Your task to perform on an android device: Open Wikipedia Image 0: 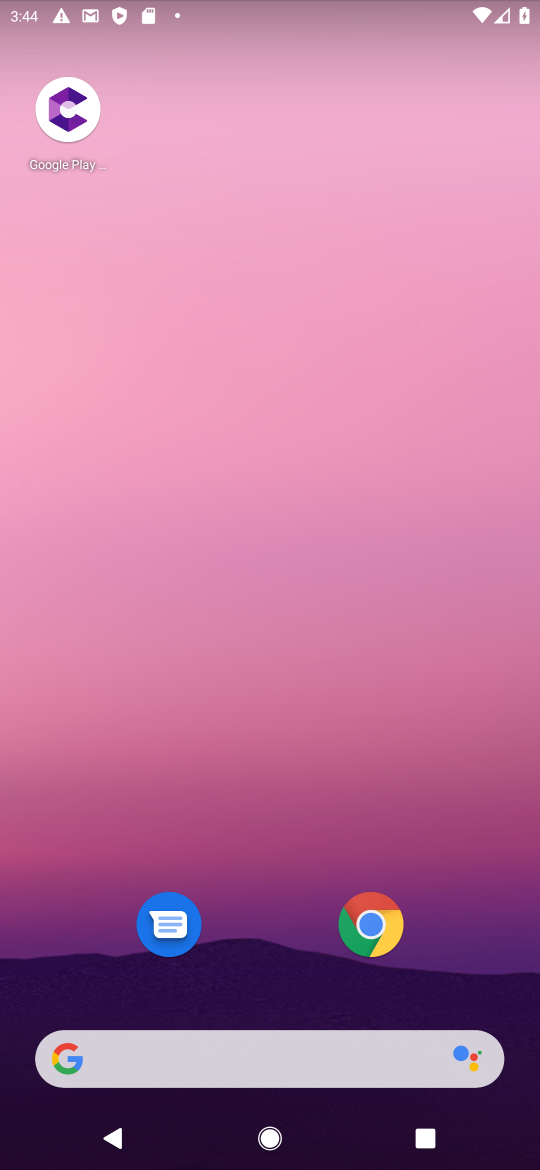
Step 0: click (366, 920)
Your task to perform on an android device: Open Wikipedia Image 1: 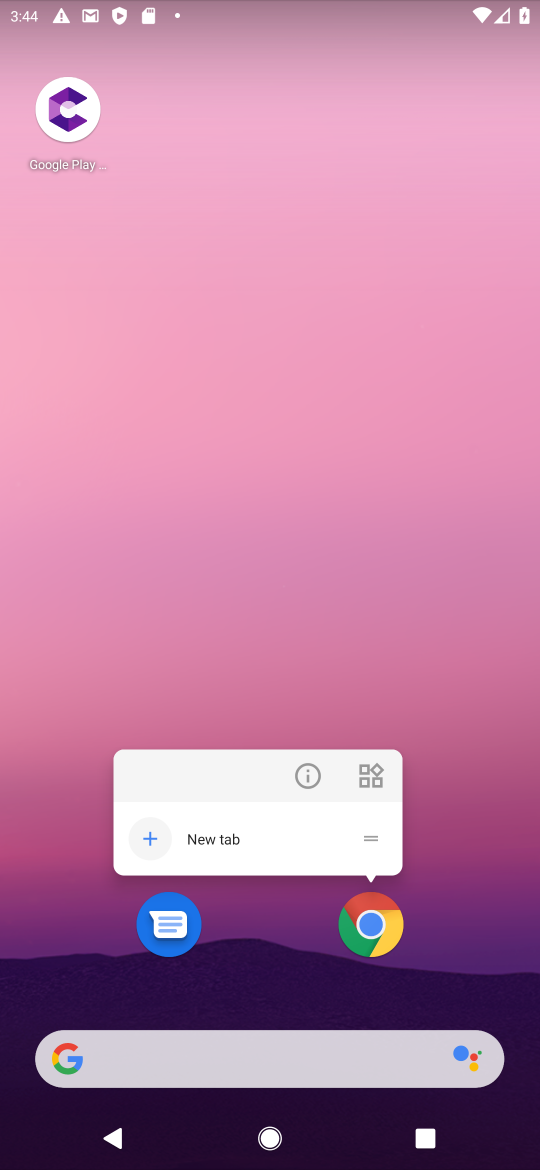
Step 1: click (366, 920)
Your task to perform on an android device: Open Wikipedia Image 2: 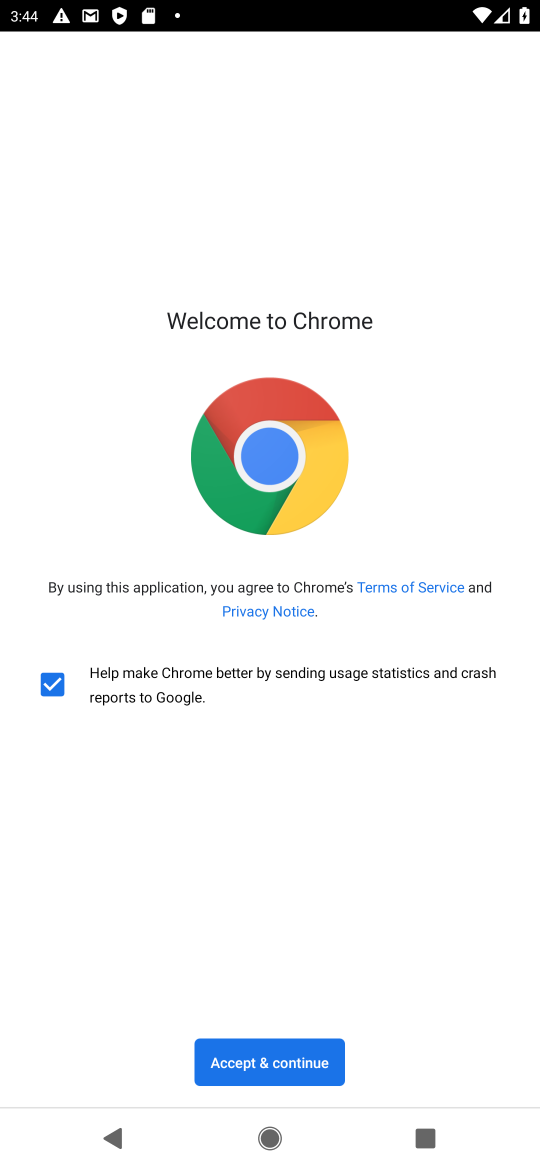
Step 2: click (271, 1054)
Your task to perform on an android device: Open Wikipedia Image 3: 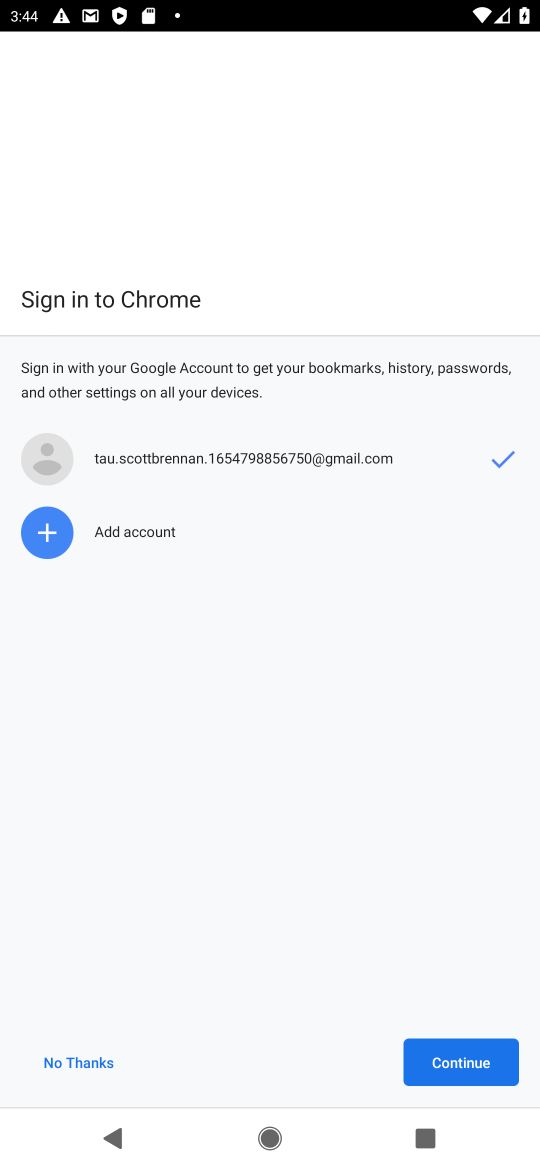
Step 3: click (440, 1059)
Your task to perform on an android device: Open Wikipedia Image 4: 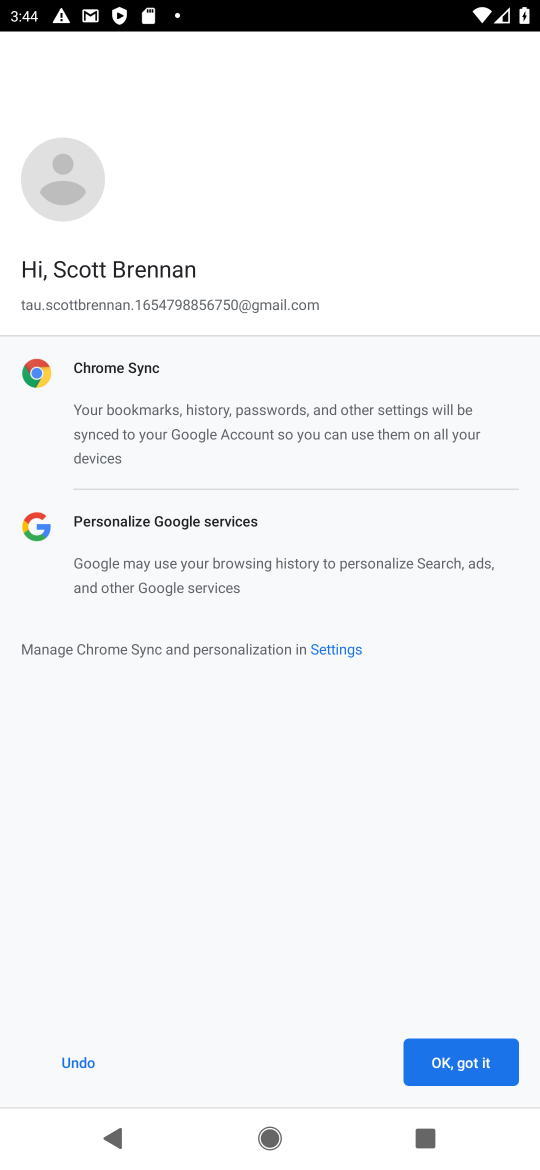
Step 4: click (440, 1059)
Your task to perform on an android device: Open Wikipedia Image 5: 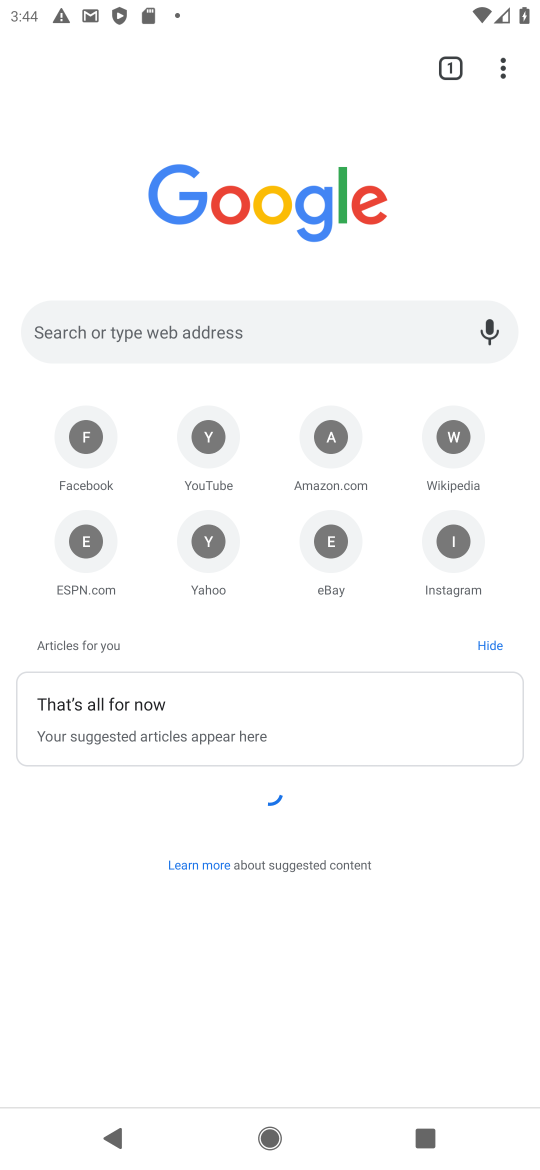
Step 5: click (455, 427)
Your task to perform on an android device: Open Wikipedia Image 6: 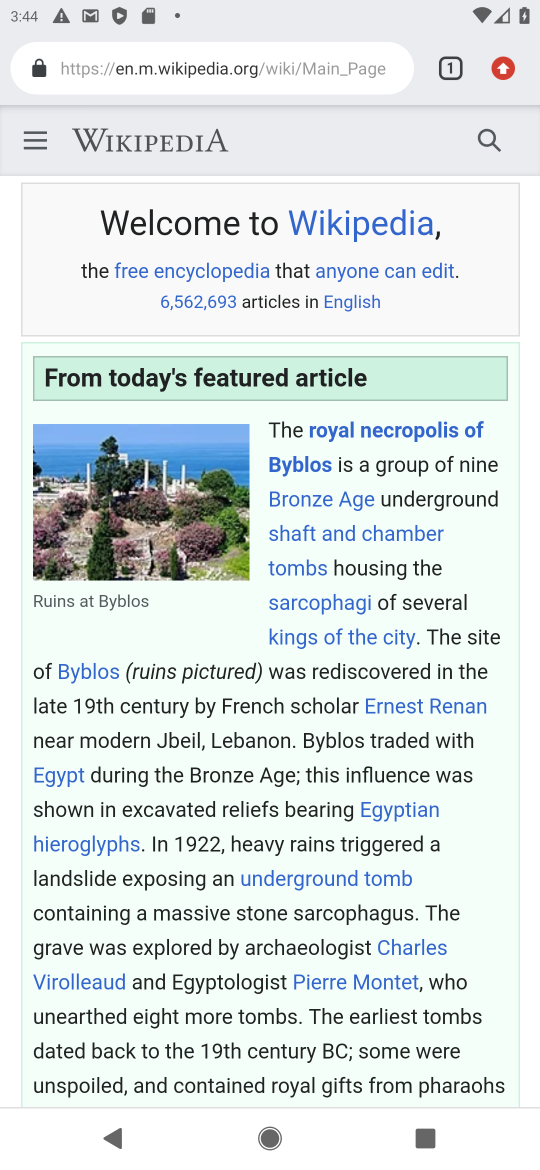
Step 6: task complete